Your task to perform on an android device: open app "Viber Messenger" Image 0: 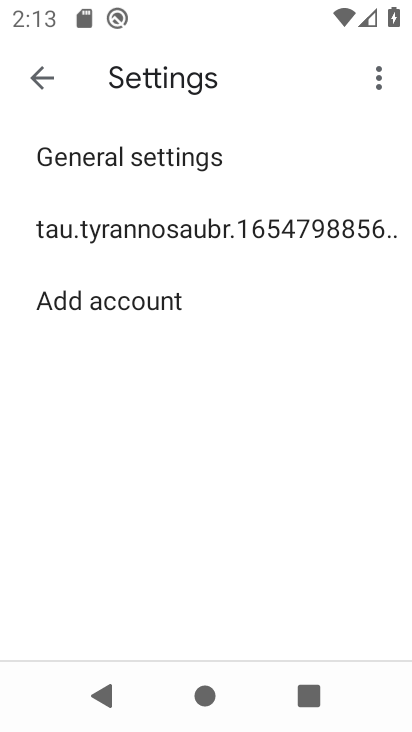
Step 0: press home button
Your task to perform on an android device: open app "Viber Messenger" Image 1: 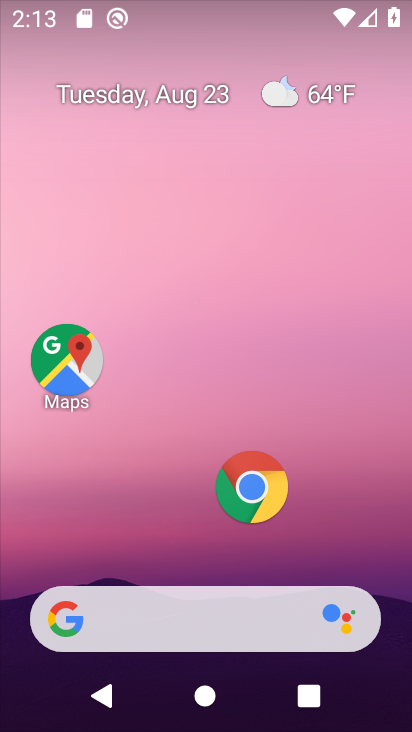
Step 1: drag from (223, 569) to (253, 173)
Your task to perform on an android device: open app "Viber Messenger" Image 2: 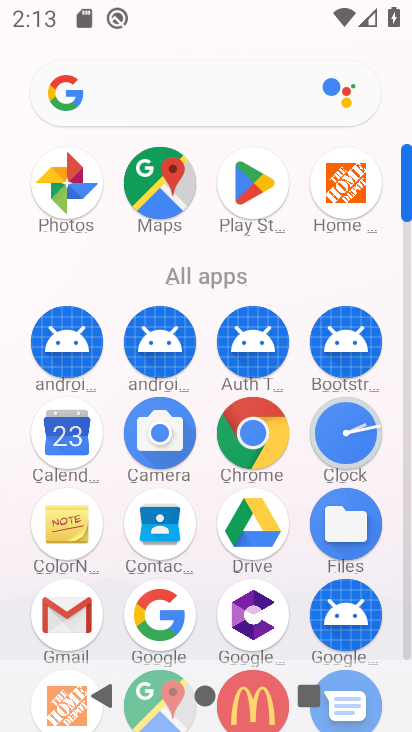
Step 2: click (259, 167)
Your task to perform on an android device: open app "Viber Messenger" Image 3: 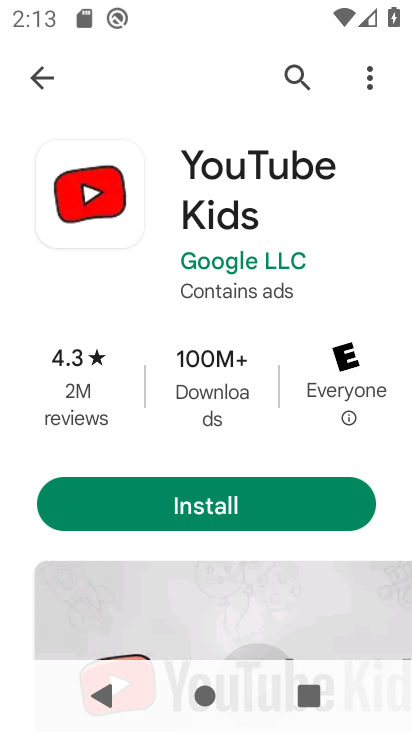
Step 3: click (16, 69)
Your task to perform on an android device: open app "Viber Messenger" Image 4: 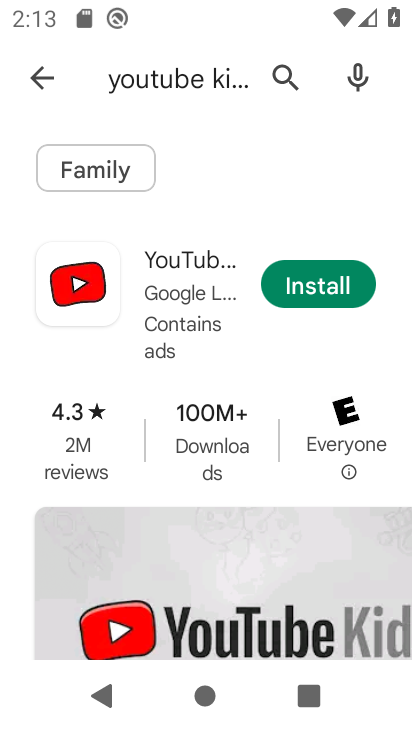
Step 4: click (32, 58)
Your task to perform on an android device: open app "Viber Messenger" Image 5: 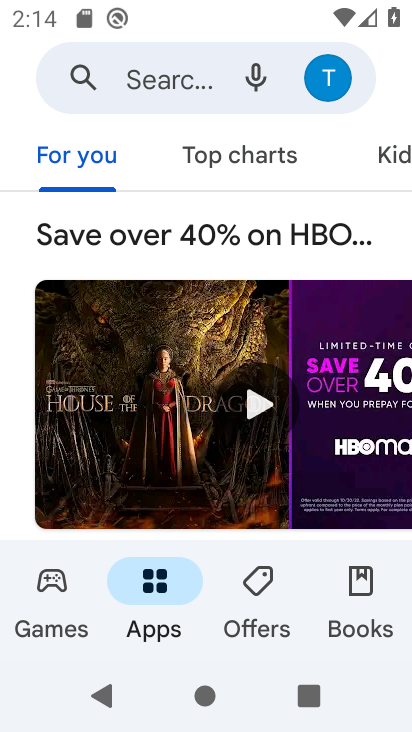
Step 5: click (146, 65)
Your task to perform on an android device: open app "Viber Messenger" Image 6: 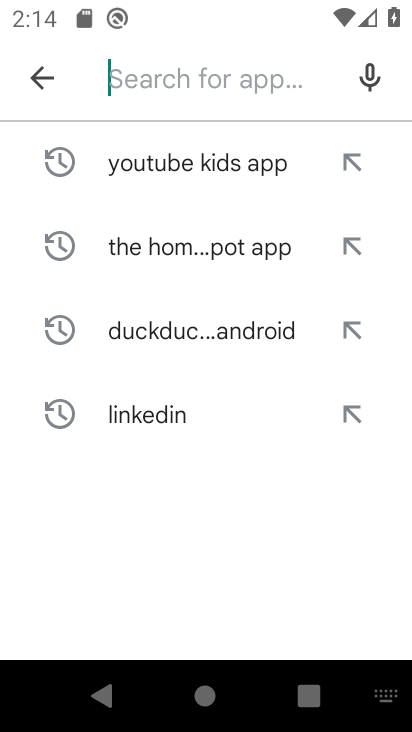
Step 6: type "Viber Messenger "
Your task to perform on an android device: open app "Viber Messenger" Image 7: 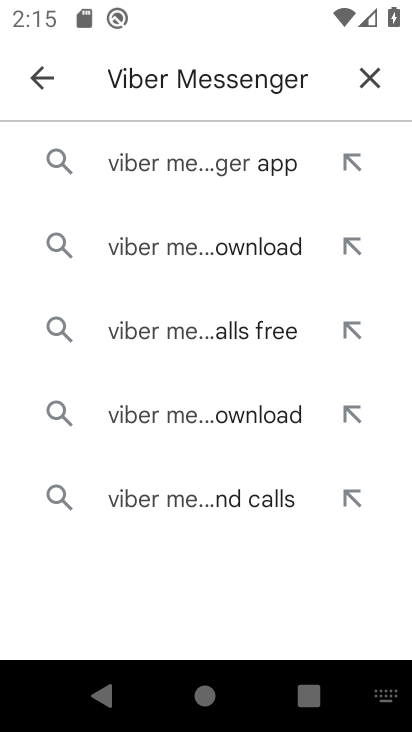
Step 7: click (239, 152)
Your task to perform on an android device: open app "Viber Messenger" Image 8: 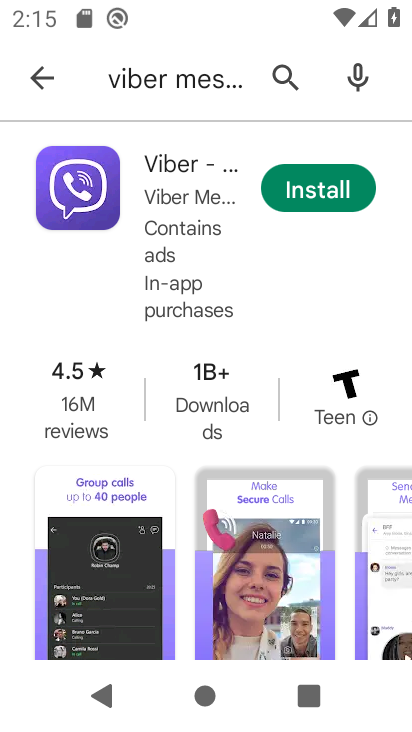
Step 8: click (277, 184)
Your task to perform on an android device: open app "Viber Messenger" Image 9: 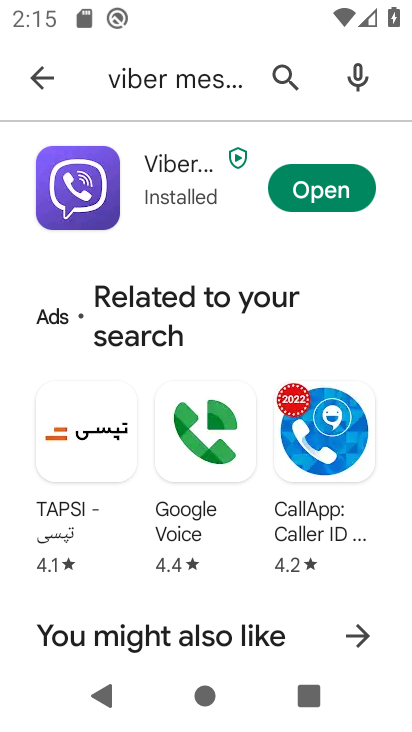
Step 9: click (293, 173)
Your task to perform on an android device: open app "Viber Messenger" Image 10: 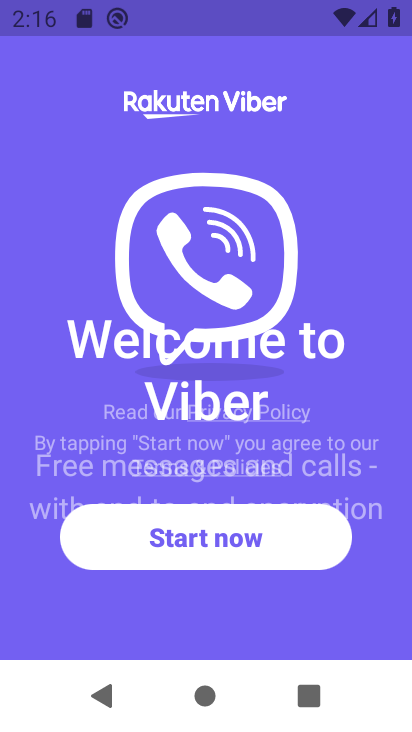
Step 10: task complete